Your task to perform on an android device: turn off data saver in the chrome app Image 0: 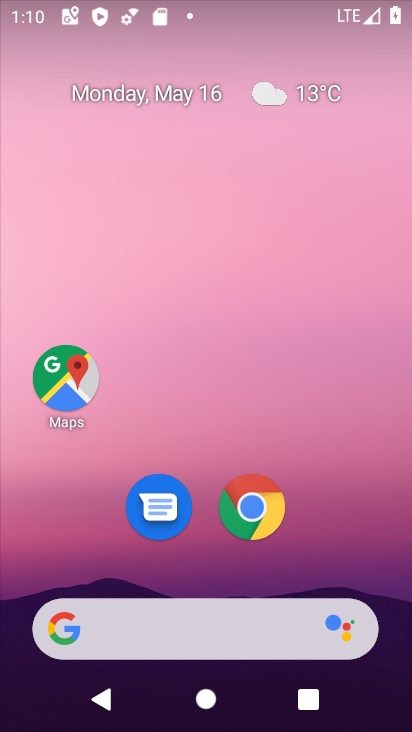
Step 0: click (261, 512)
Your task to perform on an android device: turn off data saver in the chrome app Image 1: 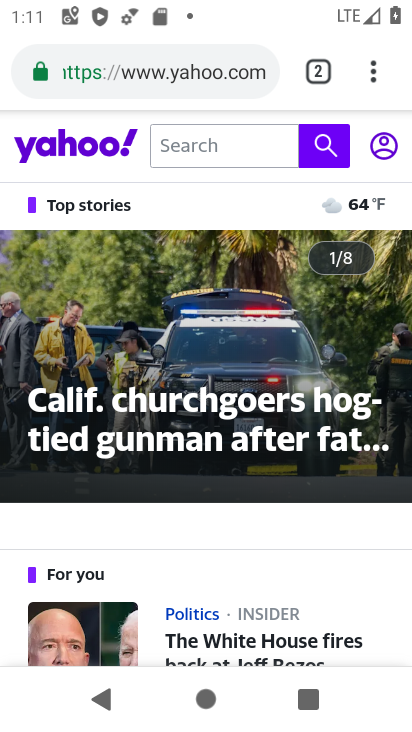
Step 1: click (376, 65)
Your task to perform on an android device: turn off data saver in the chrome app Image 2: 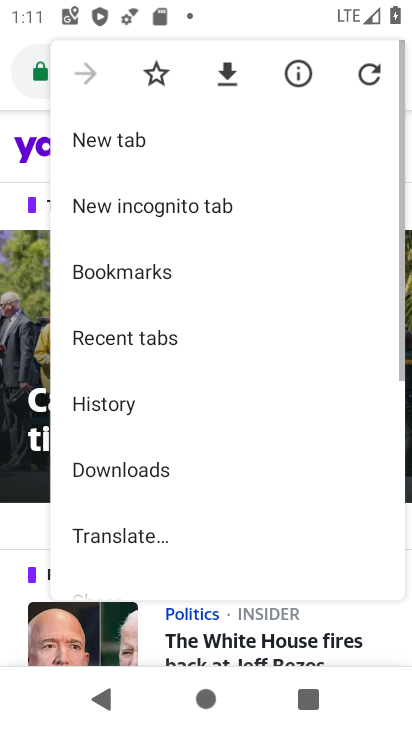
Step 2: drag from (242, 272) to (222, 145)
Your task to perform on an android device: turn off data saver in the chrome app Image 3: 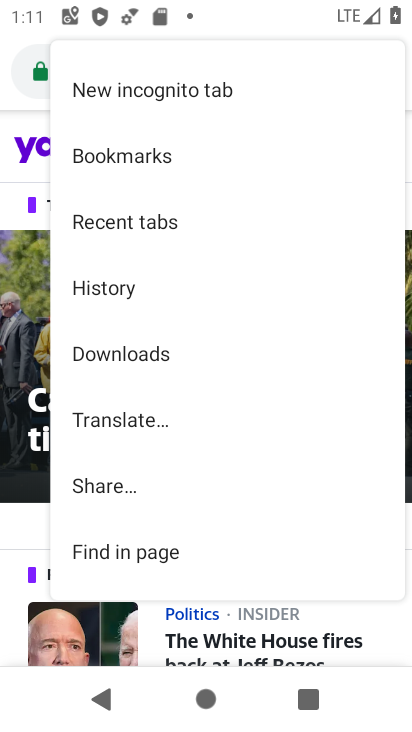
Step 3: drag from (203, 491) to (190, 118)
Your task to perform on an android device: turn off data saver in the chrome app Image 4: 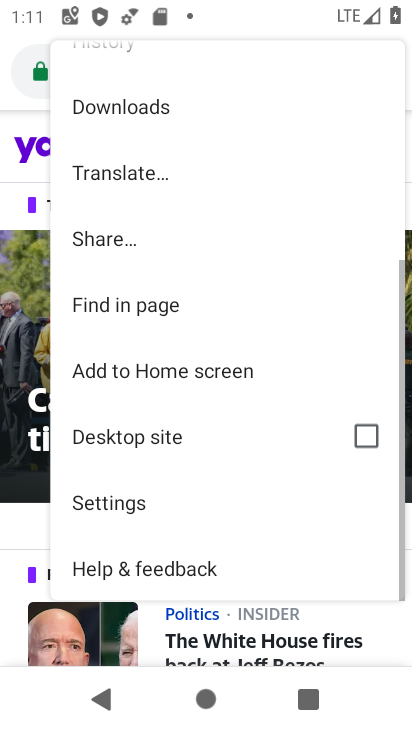
Step 4: click (152, 494)
Your task to perform on an android device: turn off data saver in the chrome app Image 5: 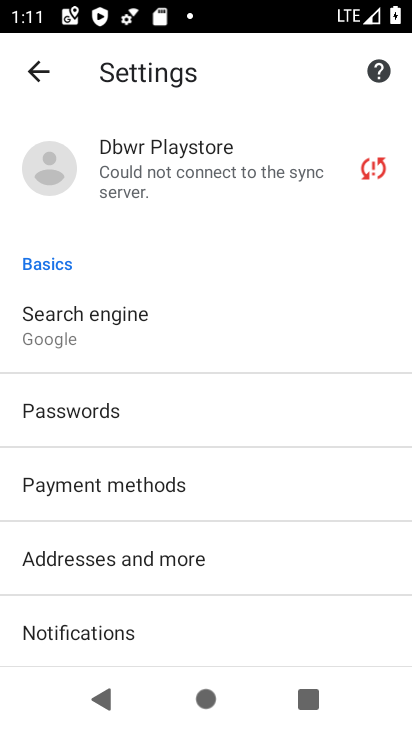
Step 5: drag from (231, 595) to (183, 148)
Your task to perform on an android device: turn off data saver in the chrome app Image 6: 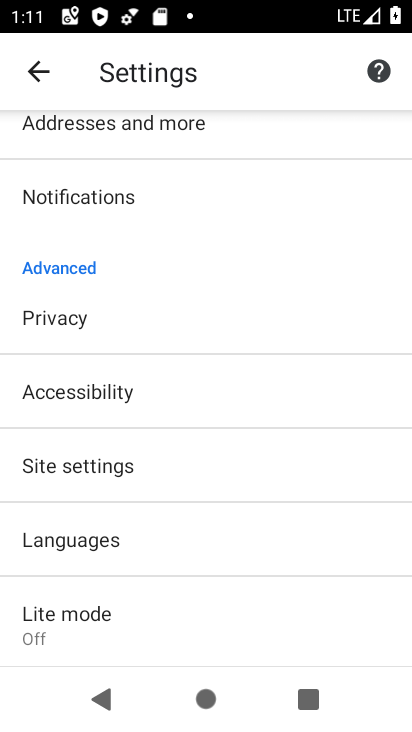
Step 6: click (163, 621)
Your task to perform on an android device: turn off data saver in the chrome app Image 7: 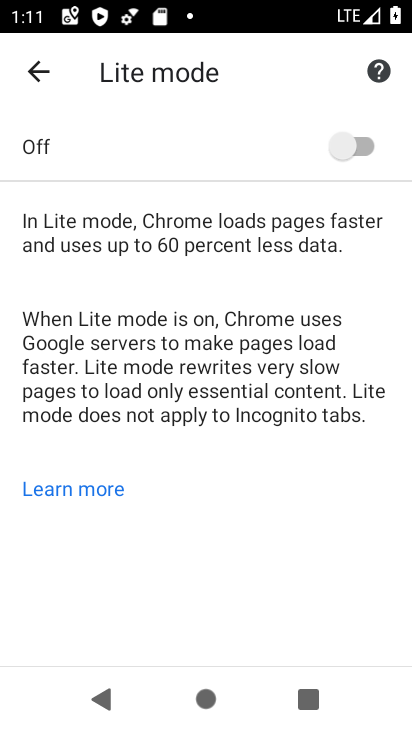
Step 7: task complete